Your task to perform on an android device: Go to ESPN.com Image 0: 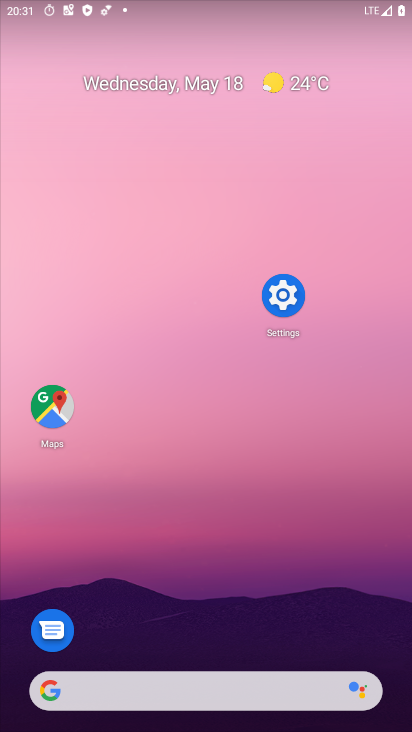
Step 0: drag from (182, 647) to (190, 398)
Your task to perform on an android device: Go to ESPN.com Image 1: 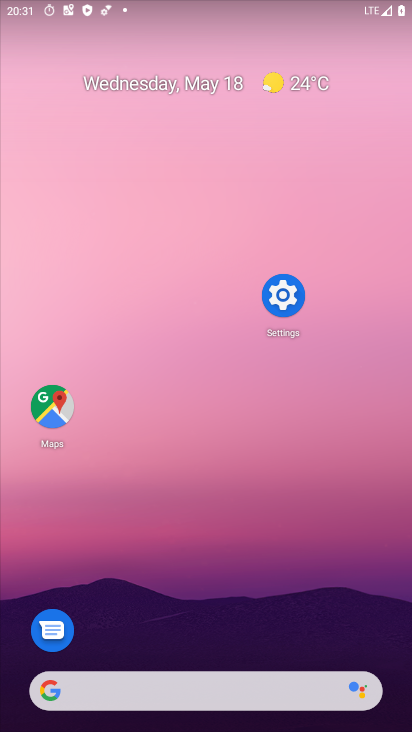
Step 1: drag from (205, 454) to (223, 199)
Your task to perform on an android device: Go to ESPN.com Image 2: 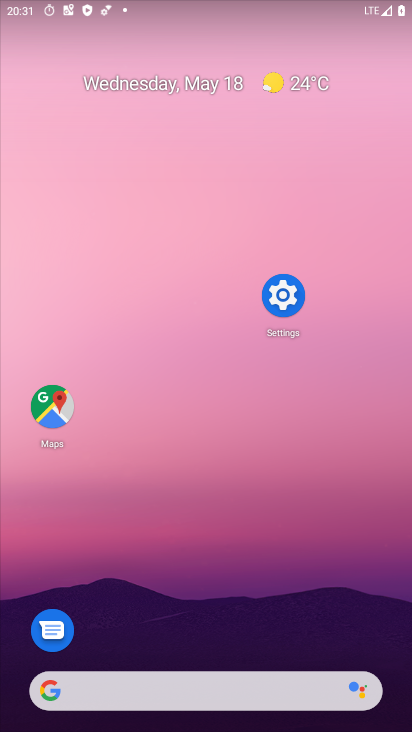
Step 2: drag from (182, 535) to (211, 206)
Your task to perform on an android device: Go to ESPN.com Image 3: 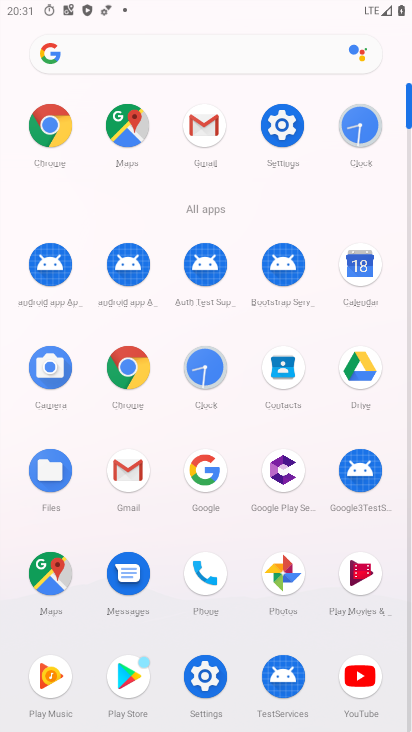
Step 3: click (136, 370)
Your task to perform on an android device: Go to ESPN.com Image 4: 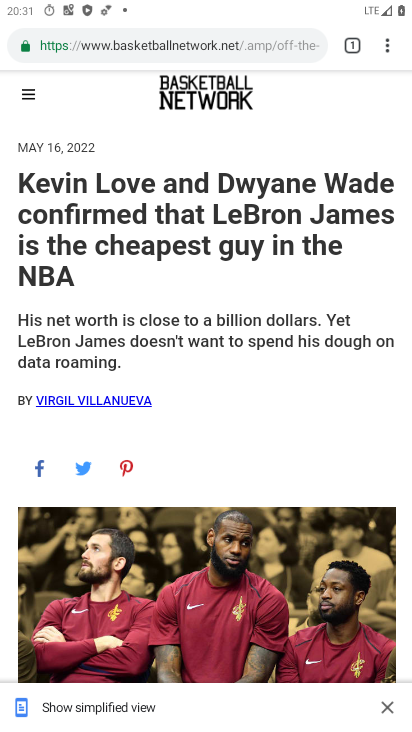
Step 4: click (354, 43)
Your task to perform on an android device: Go to ESPN.com Image 5: 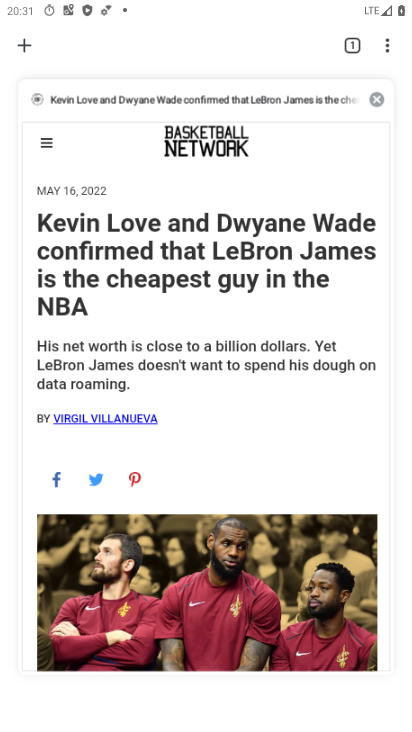
Step 5: click (376, 101)
Your task to perform on an android device: Go to ESPN.com Image 6: 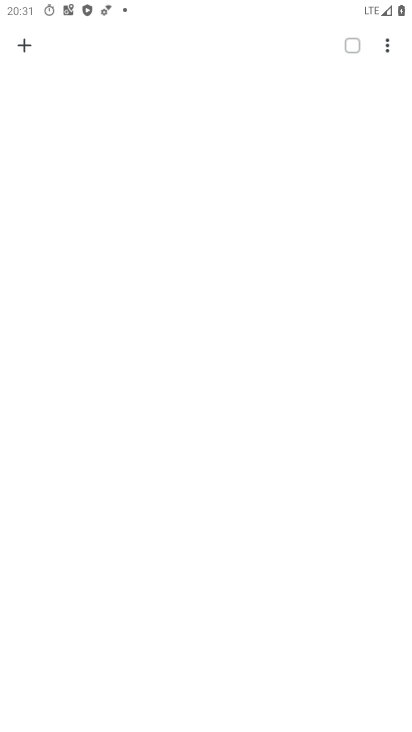
Step 6: click (24, 38)
Your task to perform on an android device: Go to ESPN.com Image 7: 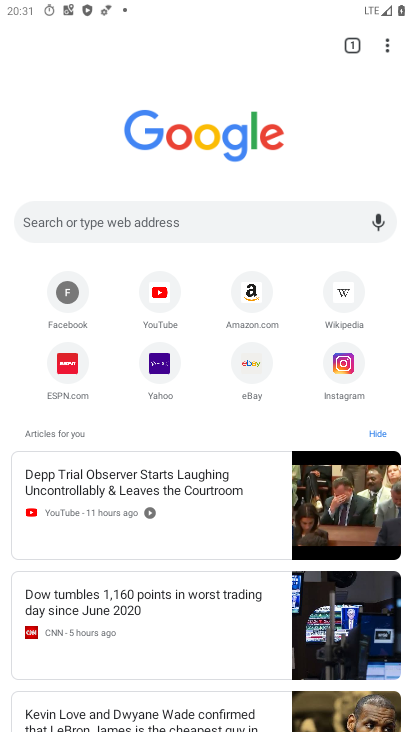
Step 7: click (76, 367)
Your task to perform on an android device: Go to ESPN.com Image 8: 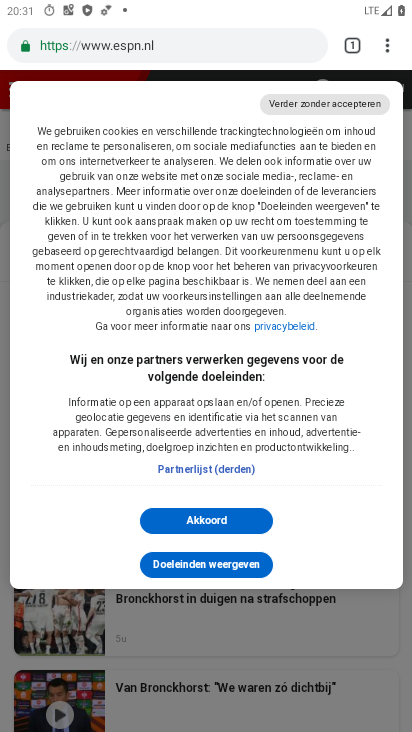
Step 8: task complete